Your task to perform on an android device: turn on data saver in the chrome app Image 0: 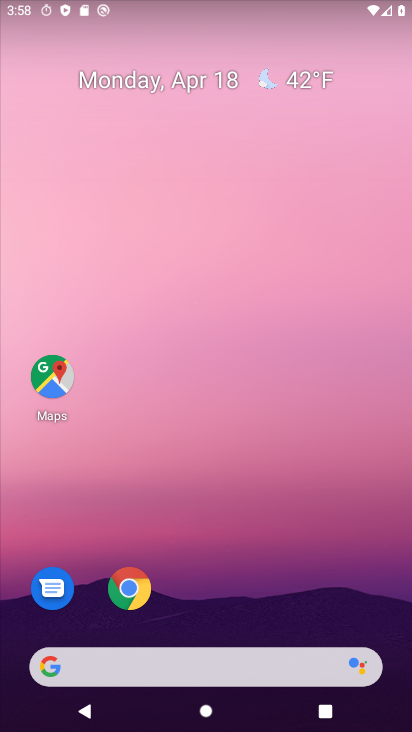
Step 0: click (131, 577)
Your task to perform on an android device: turn on data saver in the chrome app Image 1: 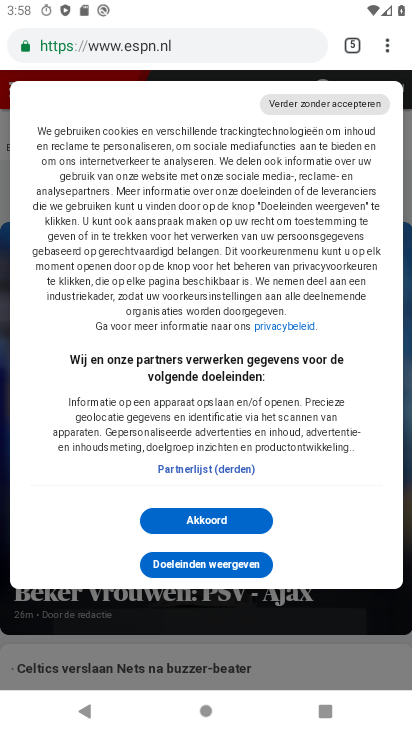
Step 1: click (383, 42)
Your task to perform on an android device: turn on data saver in the chrome app Image 2: 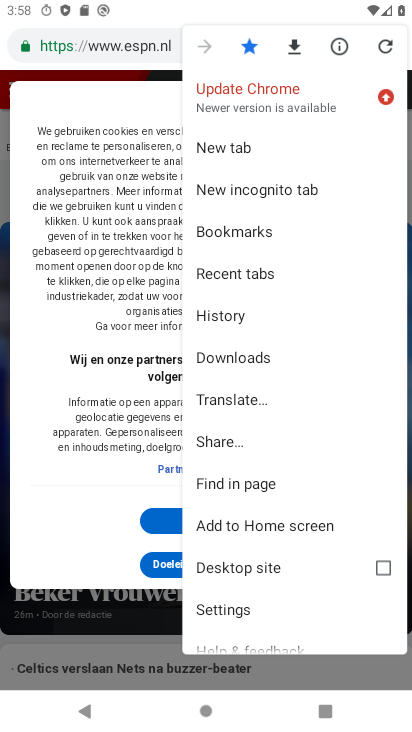
Step 2: click (257, 615)
Your task to perform on an android device: turn on data saver in the chrome app Image 3: 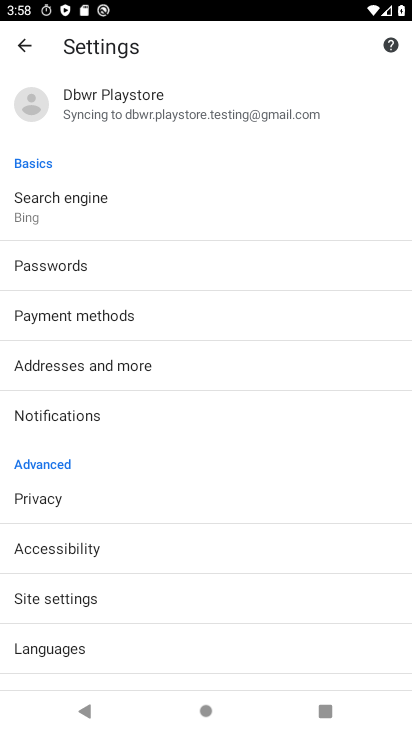
Step 3: click (285, 585)
Your task to perform on an android device: turn on data saver in the chrome app Image 4: 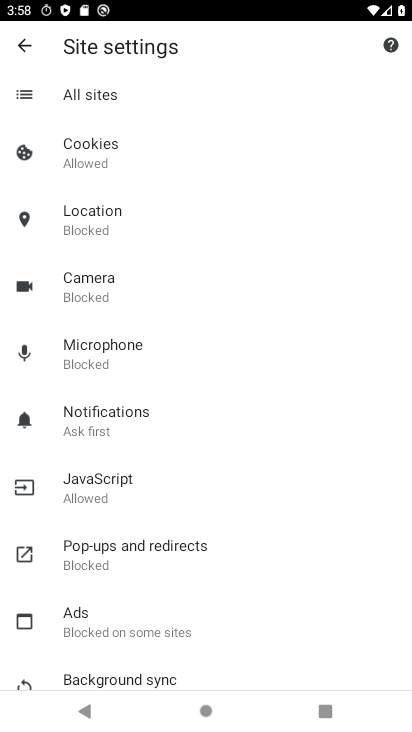
Step 4: click (26, 48)
Your task to perform on an android device: turn on data saver in the chrome app Image 5: 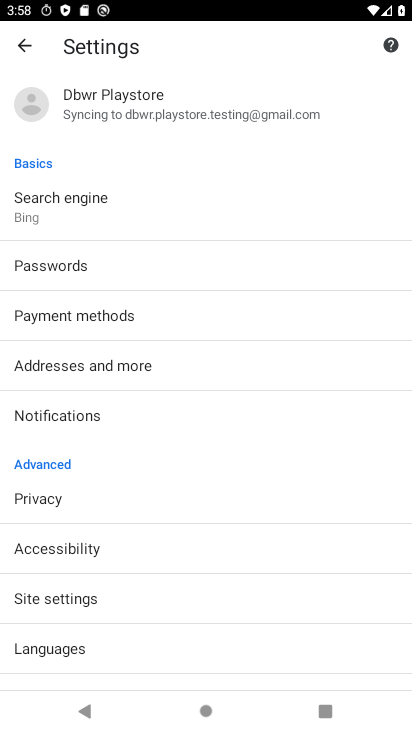
Step 5: drag from (185, 642) to (160, 321)
Your task to perform on an android device: turn on data saver in the chrome app Image 6: 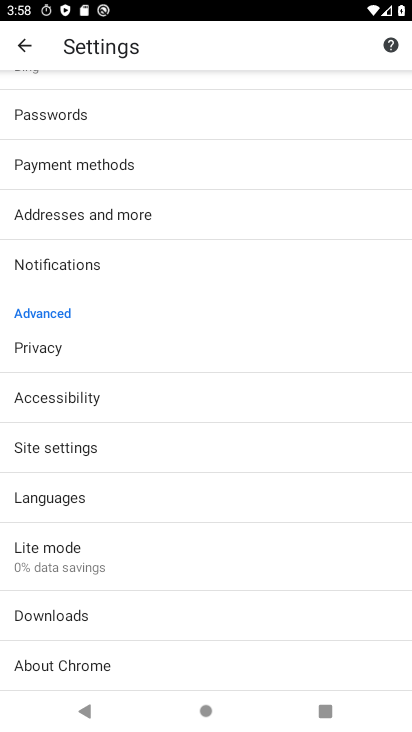
Step 6: click (53, 547)
Your task to perform on an android device: turn on data saver in the chrome app Image 7: 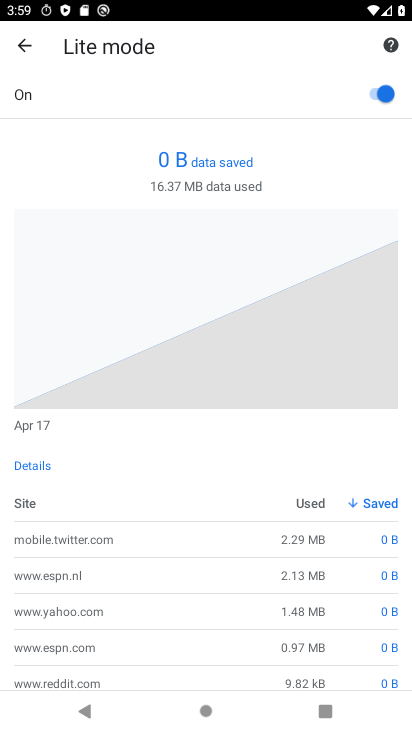
Step 7: task complete